Your task to perform on an android device: turn smart compose on in the gmail app Image 0: 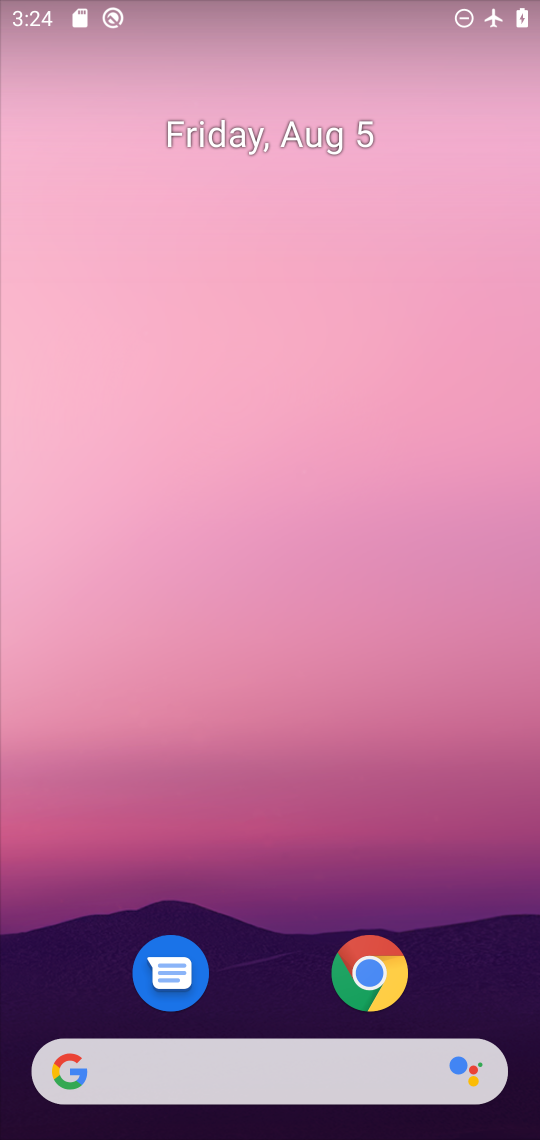
Step 0: drag from (276, 1036) to (204, 64)
Your task to perform on an android device: turn smart compose on in the gmail app Image 1: 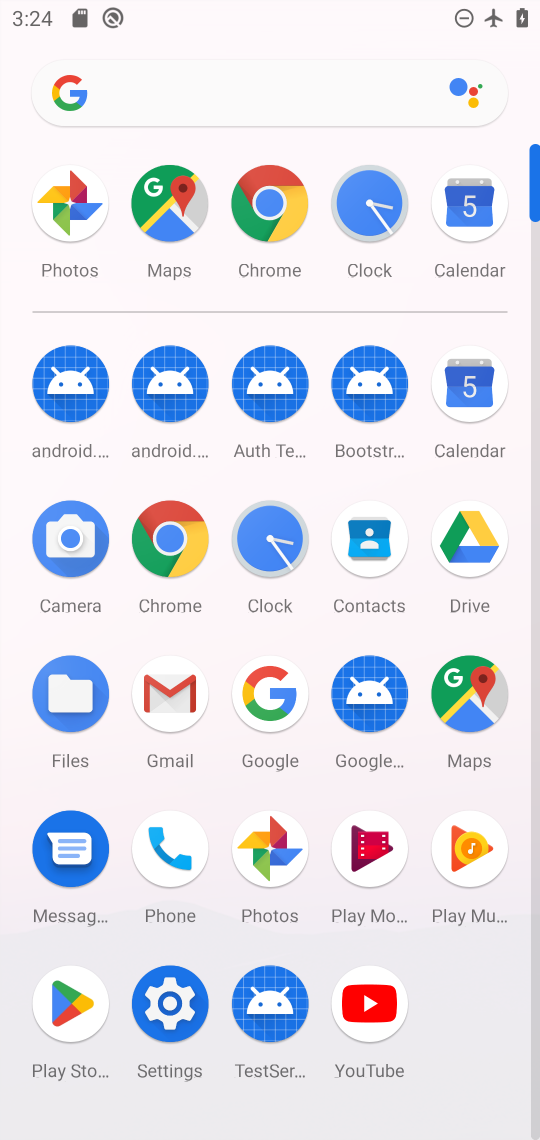
Step 1: click (174, 701)
Your task to perform on an android device: turn smart compose on in the gmail app Image 2: 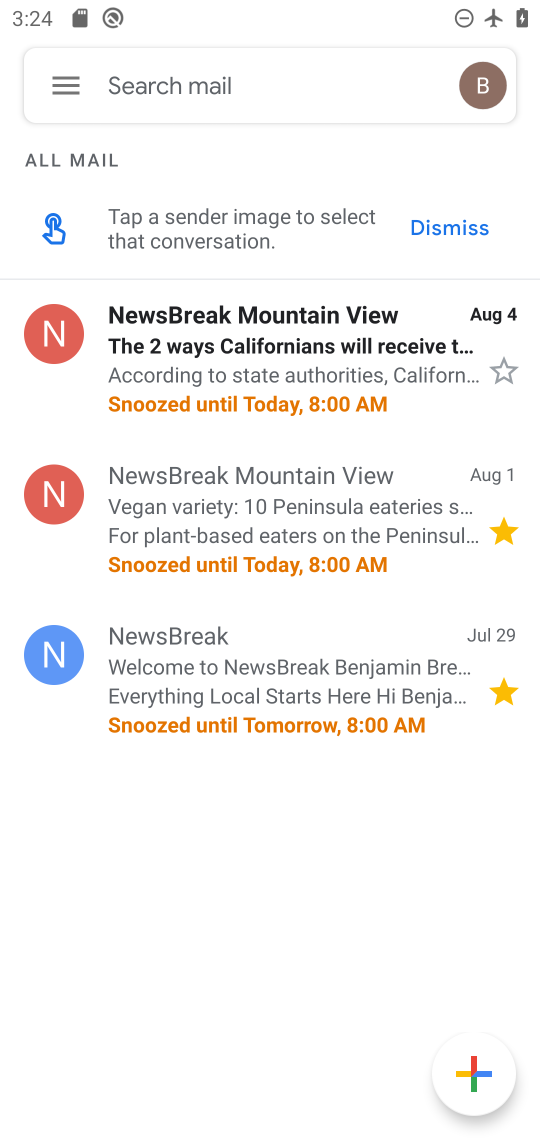
Step 2: click (51, 89)
Your task to perform on an android device: turn smart compose on in the gmail app Image 3: 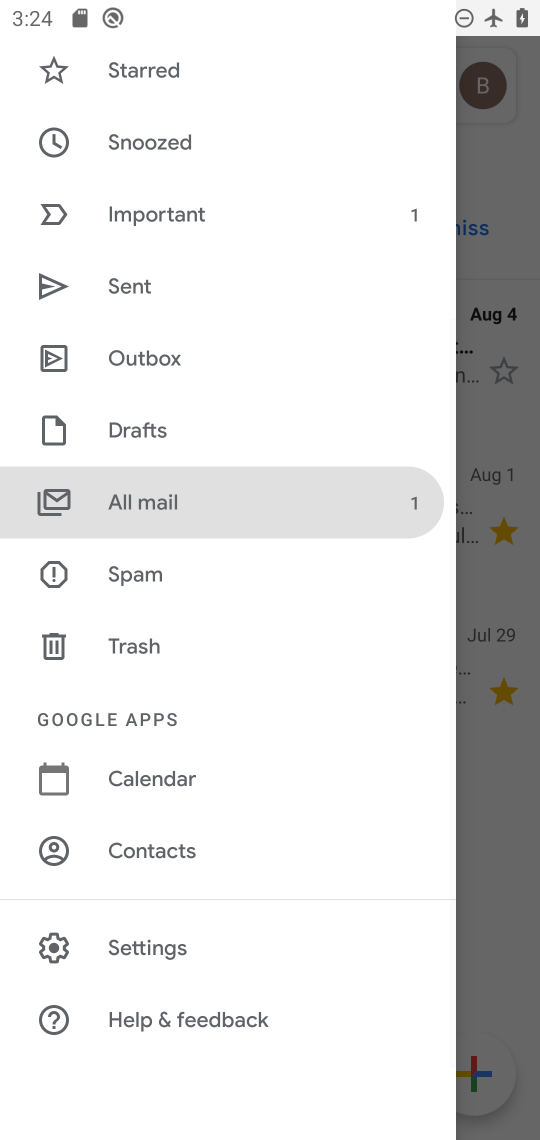
Step 3: click (176, 930)
Your task to perform on an android device: turn smart compose on in the gmail app Image 4: 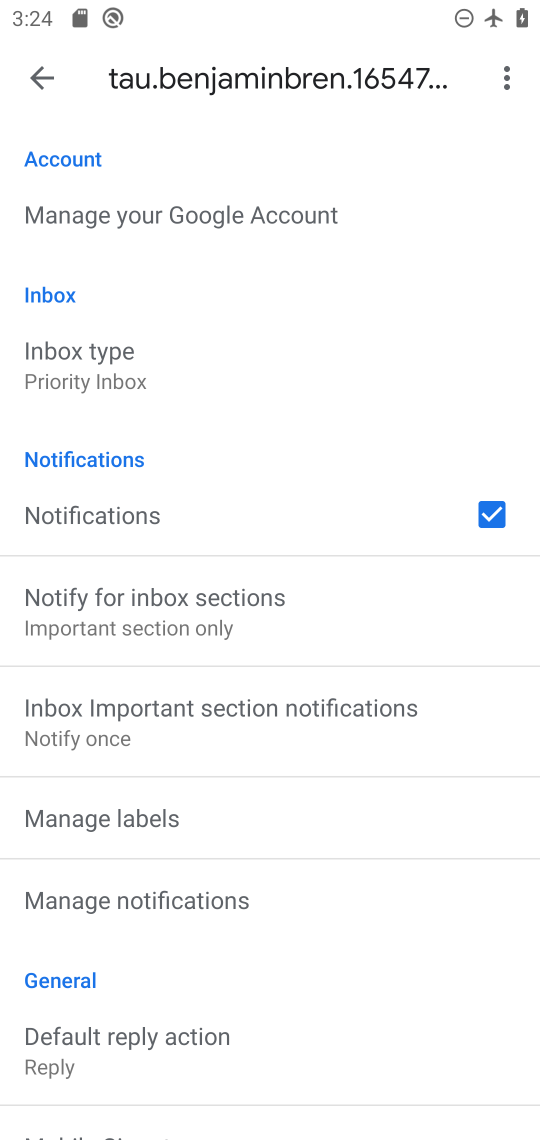
Step 4: task complete